Your task to perform on an android device: toggle improve location accuracy Image 0: 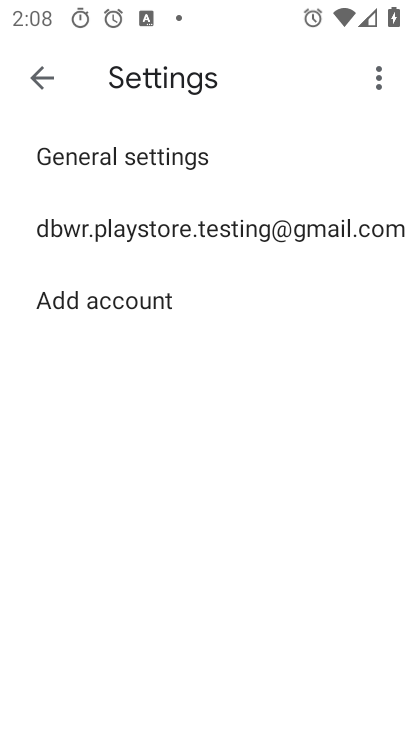
Step 0: press home button
Your task to perform on an android device: toggle improve location accuracy Image 1: 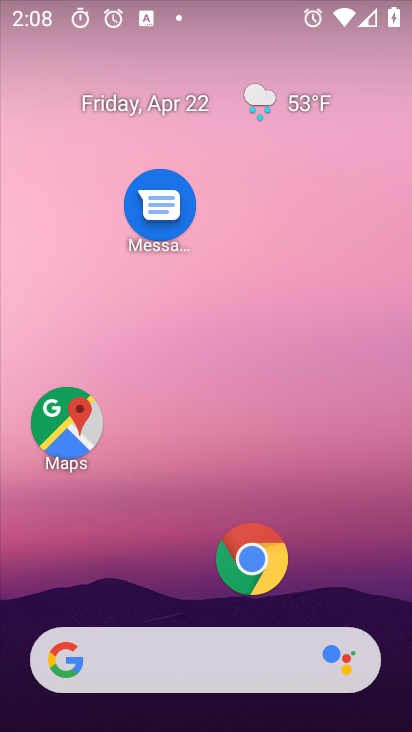
Step 1: drag from (167, 620) to (325, 106)
Your task to perform on an android device: toggle improve location accuracy Image 2: 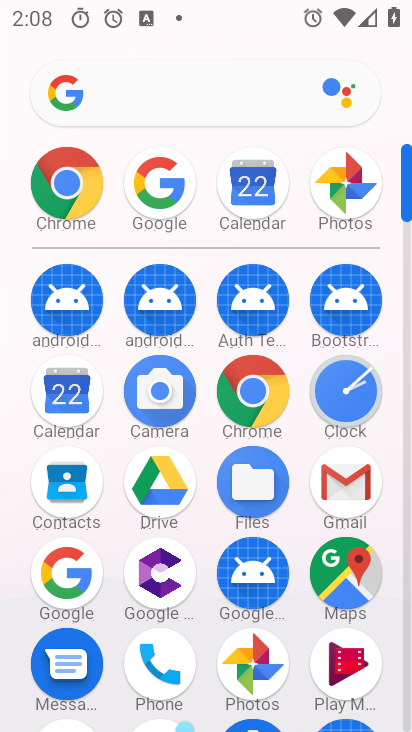
Step 2: drag from (199, 651) to (253, 324)
Your task to perform on an android device: toggle improve location accuracy Image 3: 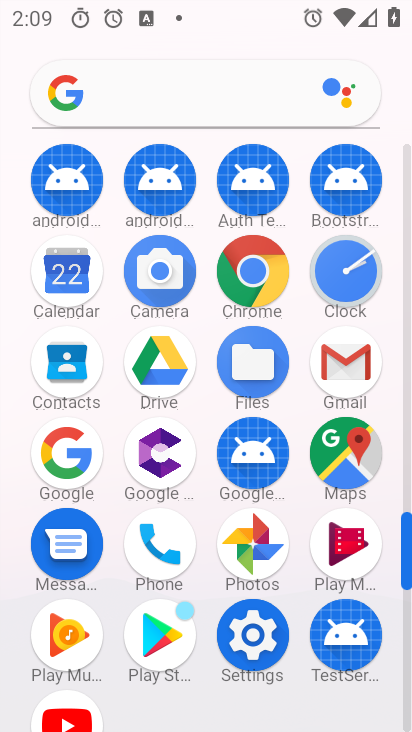
Step 3: click (246, 643)
Your task to perform on an android device: toggle improve location accuracy Image 4: 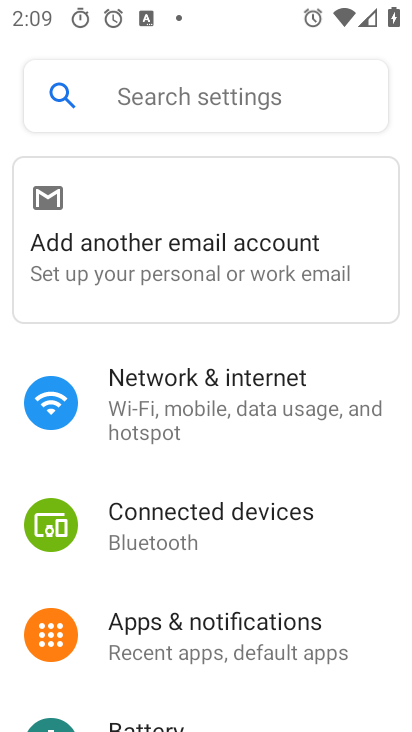
Step 4: drag from (242, 647) to (286, 328)
Your task to perform on an android device: toggle improve location accuracy Image 5: 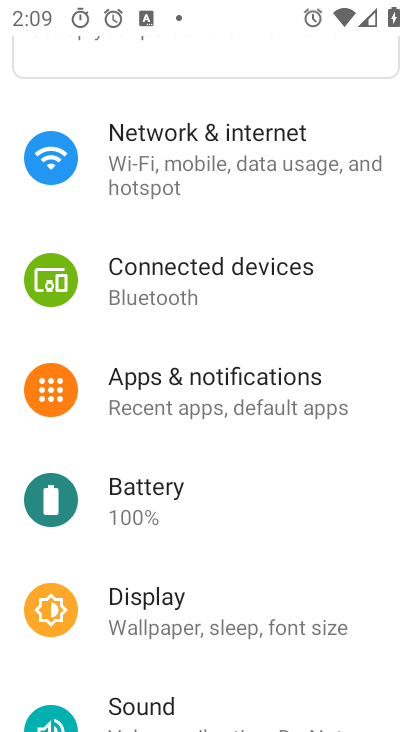
Step 5: drag from (277, 654) to (348, 402)
Your task to perform on an android device: toggle improve location accuracy Image 6: 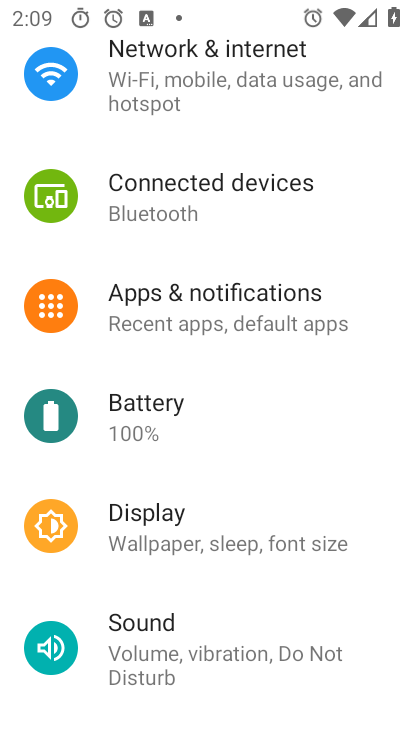
Step 6: drag from (226, 700) to (297, 385)
Your task to perform on an android device: toggle improve location accuracy Image 7: 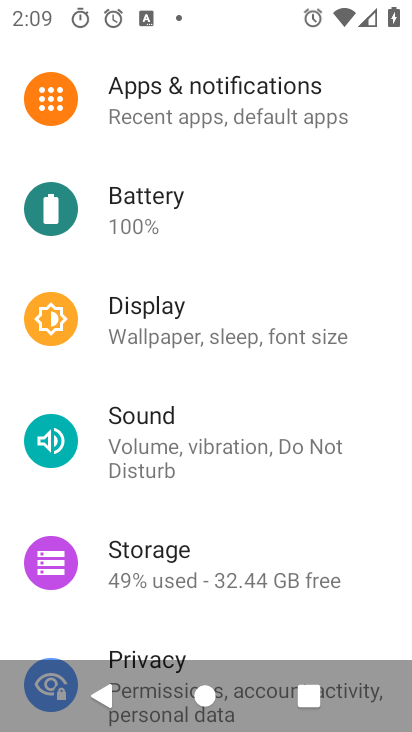
Step 7: drag from (241, 544) to (301, 315)
Your task to perform on an android device: toggle improve location accuracy Image 8: 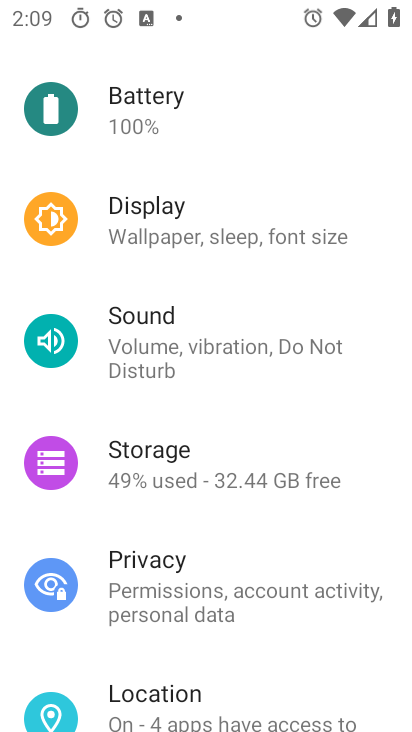
Step 8: click (145, 713)
Your task to perform on an android device: toggle improve location accuracy Image 9: 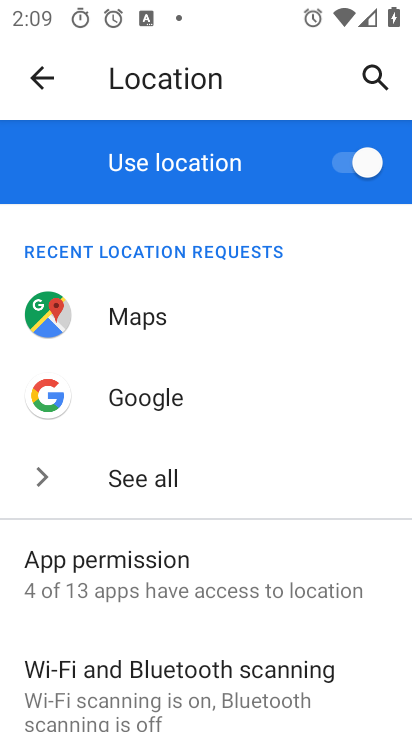
Step 9: drag from (190, 700) to (273, 395)
Your task to perform on an android device: toggle improve location accuracy Image 10: 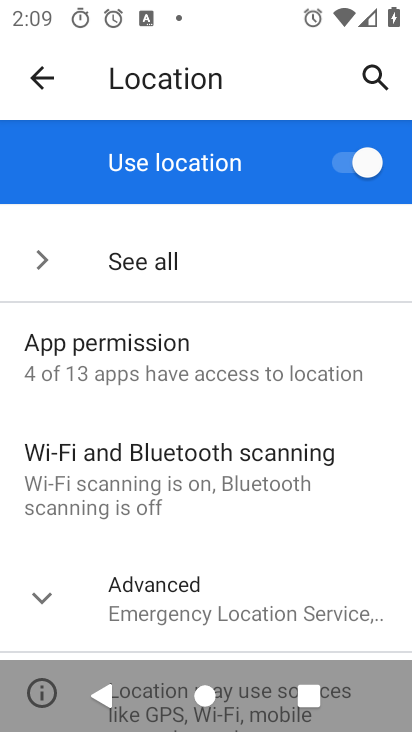
Step 10: click (170, 598)
Your task to perform on an android device: toggle improve location accuracy Image 11: 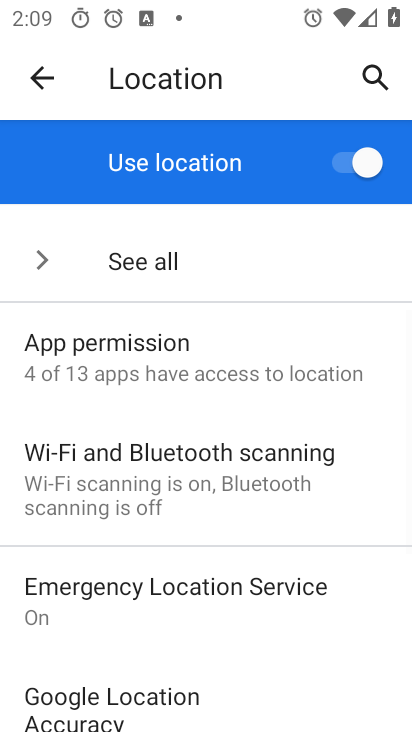
Step 11: drag from (234, 688) to (322, 436)
Your task to perform on an android device: toggle improve location accuracy Image 12: 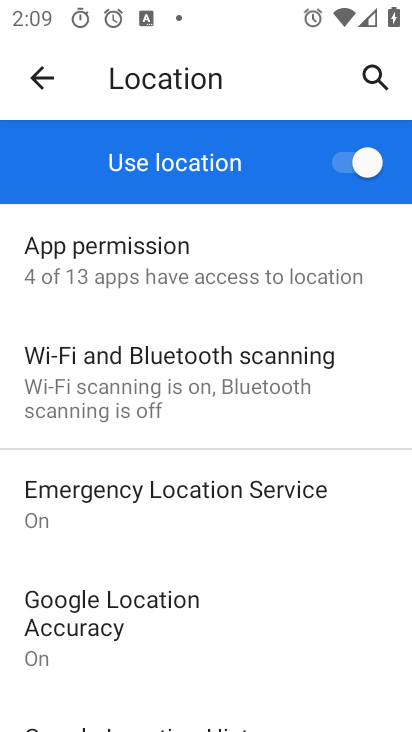
Step 12: click (105, 620)
Your task to perform on an android device: toggle improve location accuracy Image 13: 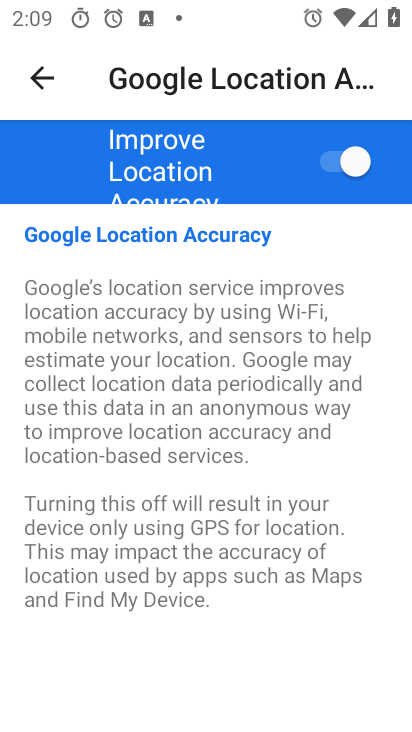
Step 13: click (337, 163)
Your task to perform on an android device: toggle improve location accuracy Image 14: 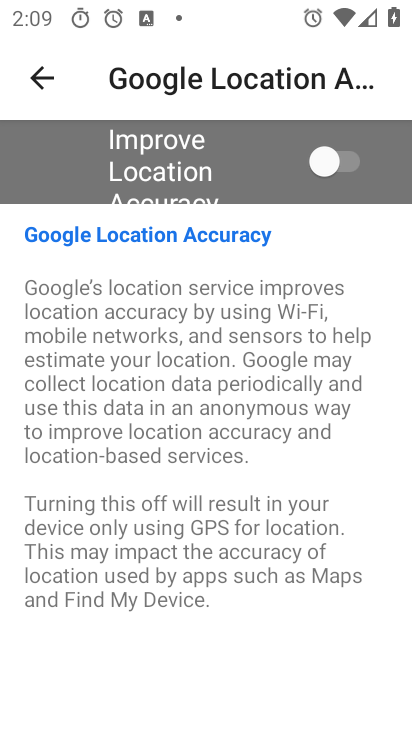
Step 14: task complete